Your task to perform on an android device: turn on priority inbox in the gmail app Image 0: 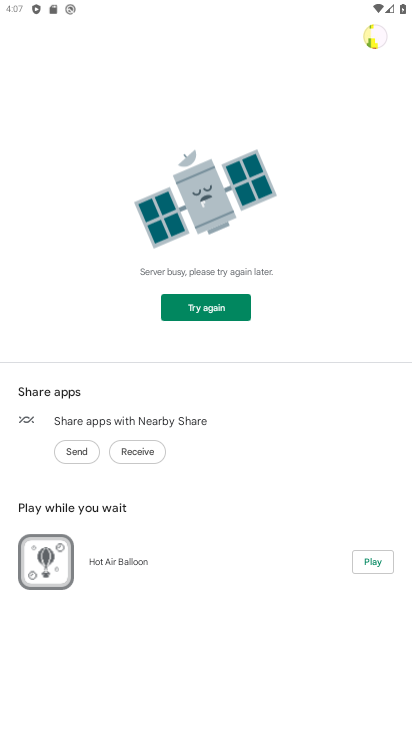
Step 0: press home button
Your task to perform on an android device: turn on priority inbox in the gmail app Image 1: 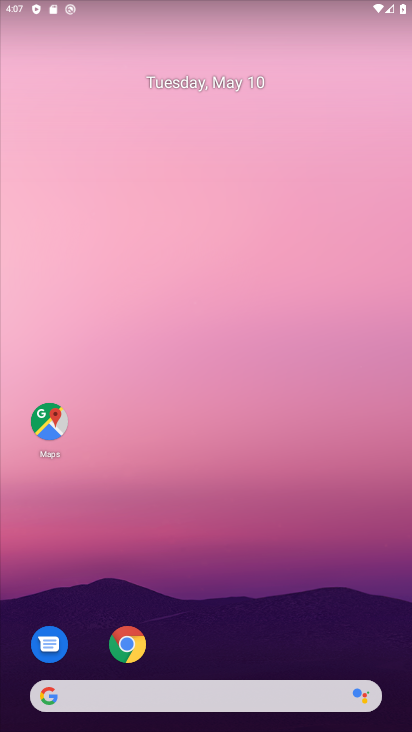
Step 1: drag from (187, 678) to (199, 315)
Your task to perform on an android device: turn on priority inbox in the gmail app Image 2: 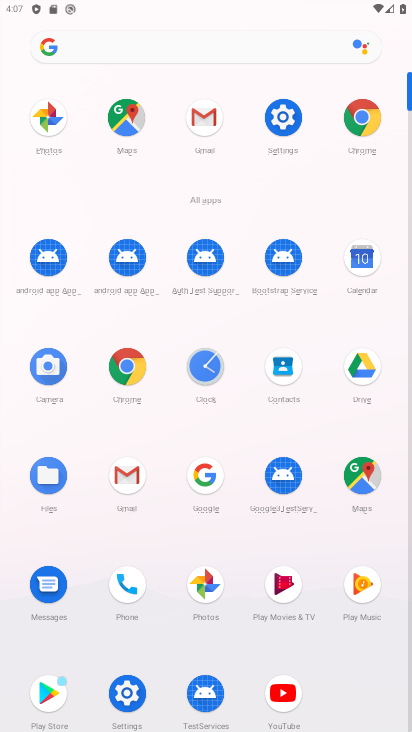
Step 2: click (132, 473)
Your task to perform on an android device: turn on priority inbox in the gmail app Image 3: 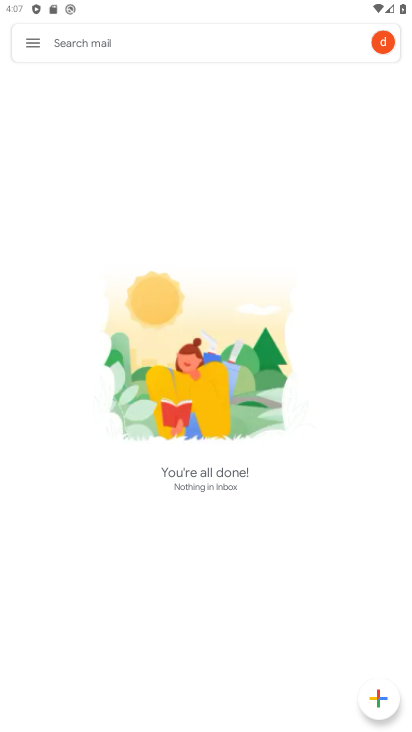
Step 3: click (40, 45)
Your task to perform on an android device: turn on priority inbox in the gmail app Image 4: 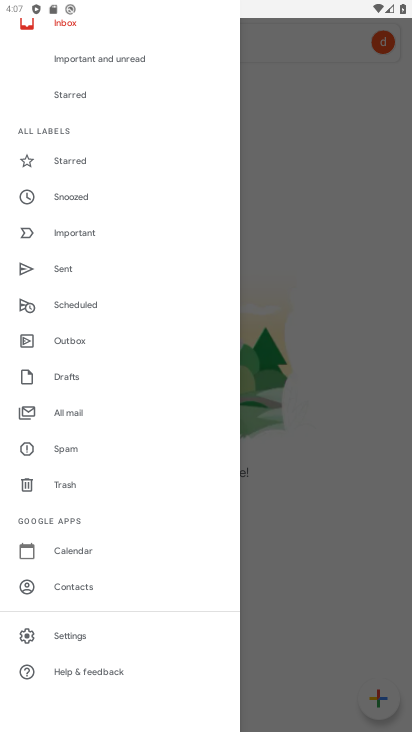
Step 4: click (80, 632)
Your task to perform on an android device: turn on priority inbox in the gmail app Image 5: 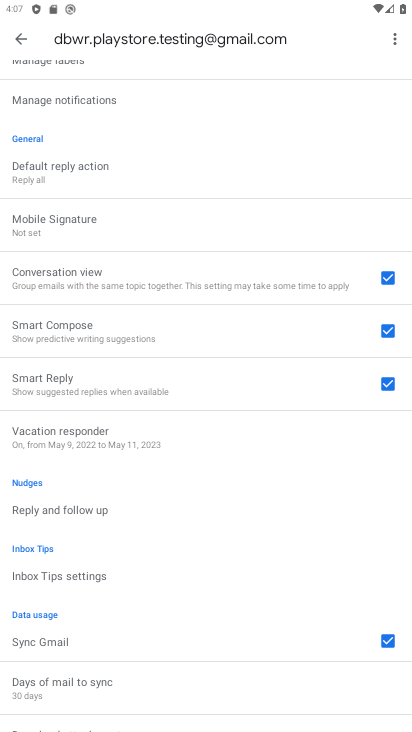
Step 5: drag from (105, 125) to (82, 425)
Your task to perform on an android device: turn on priority inbox in the gmail app Image 6: 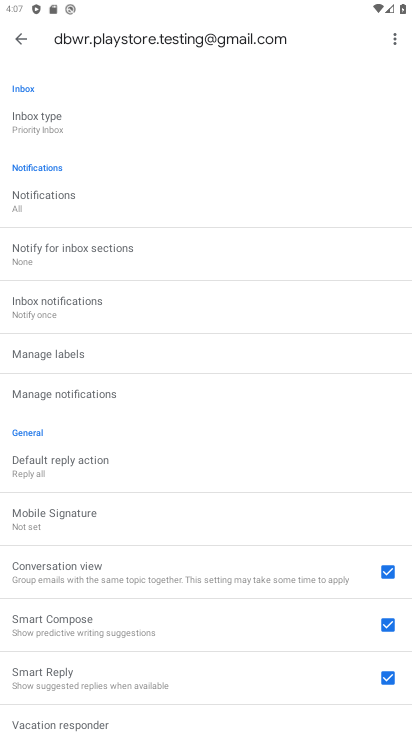
Step 6: click (34, 125)
Your task to perform on an android device: turn on priority inbox in the gmail app Image 7: 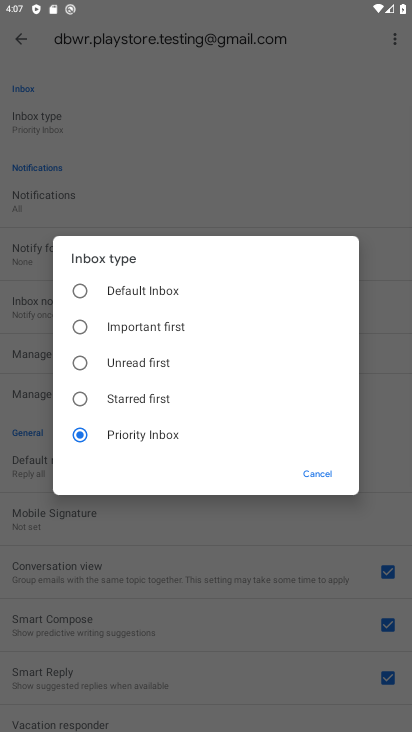
Step 7: click (139, 431)
Your task to perform on an android device: turn on priority inbox in the gmail app Image 8: 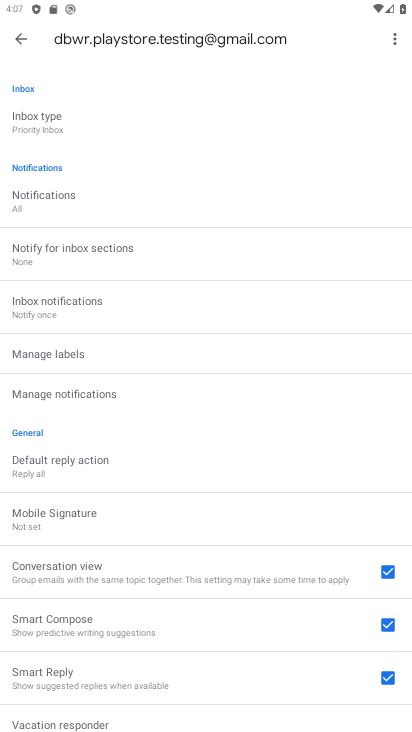
Step 8: task complete